Your task to perform on an android device: Open Google Image 0: 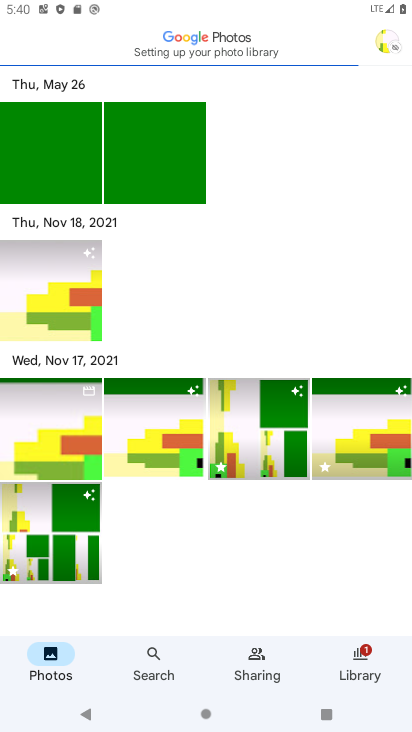
Step 0: press home button
Your task to perform on an android device: Open Google Image 1: 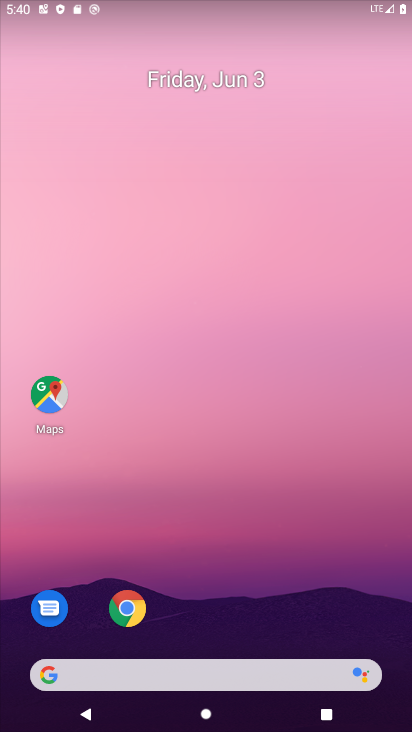
Step 1: click (213, 665)
Your task to perform on an android device: Open Google Image 2: 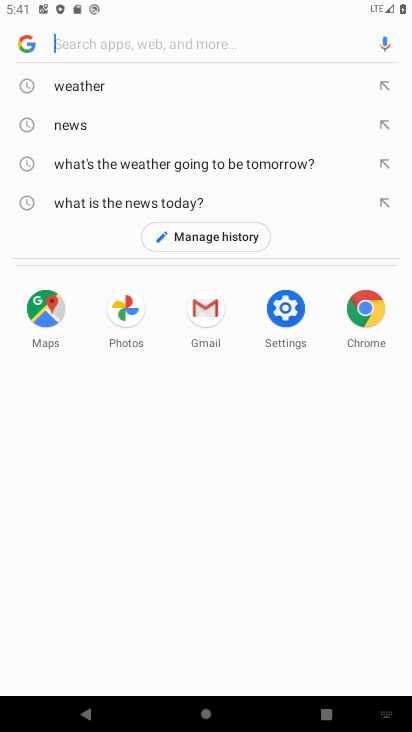
Step 2: task complete